Your task to perform on an android device: Open Google Maps and go to "Timeline" Image 0: 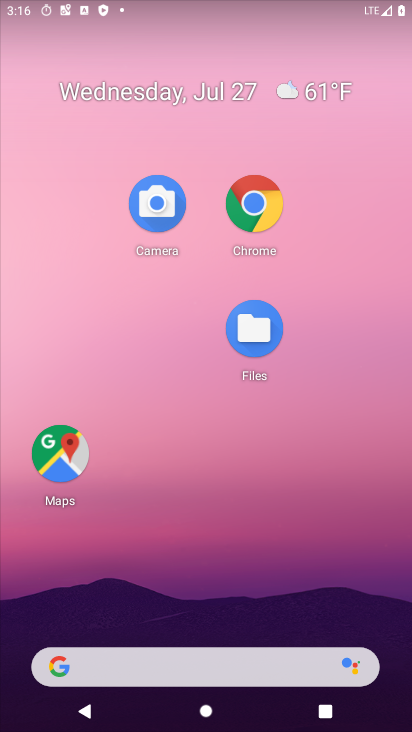
Step 0: click (78, 478)
Your task to perform on an android device: Open Google Maps and go to "Timeline" Image 1: 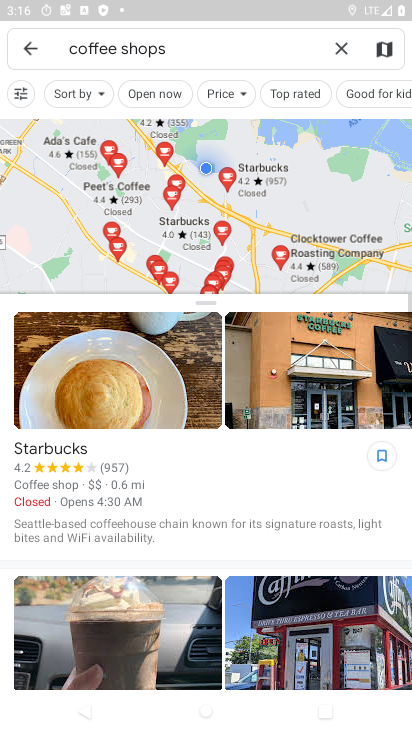
Step 1: click (22, 50)
Your task to perform on an android device: Open Google Maps and go to "Timeline" Image 2: 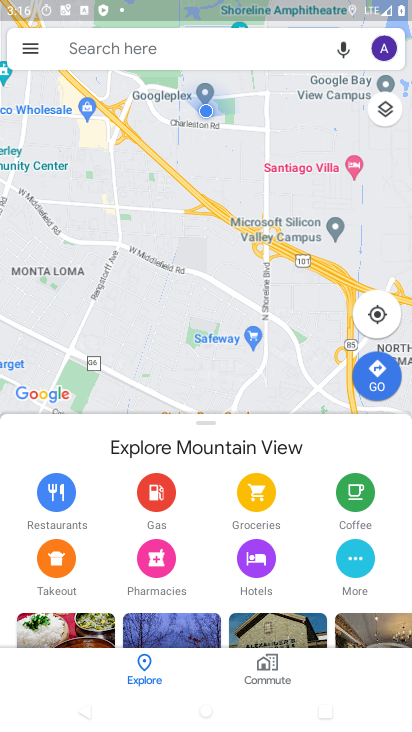
Step 2: click (29, 49)
Your task to perform on an android device: Open Google Maps and go to "Timeline" Image 3: 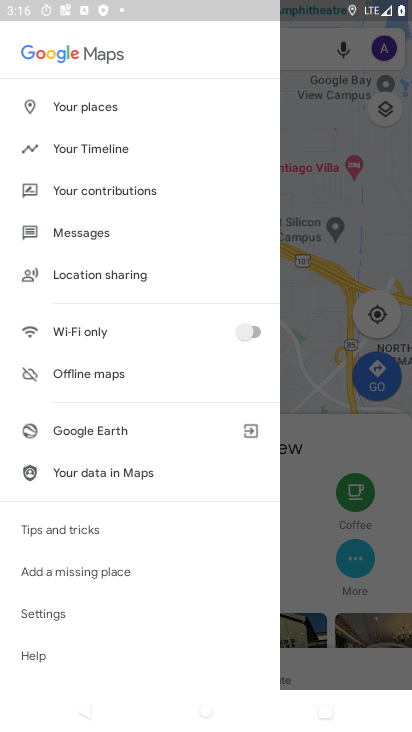
Step 3: click (101, 142)
Your task to perform on an android device: Open Google Maps and go to "Timeline" Image 4: 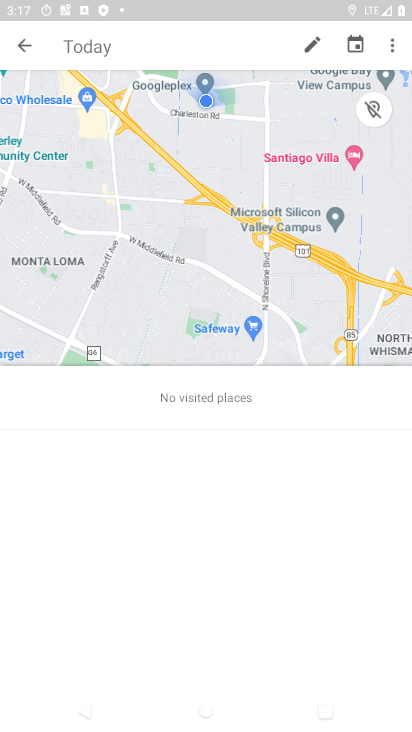
Step 4: task complete